Your task to perform on an android device: toggle priority inbox in the gmail app Image 0: 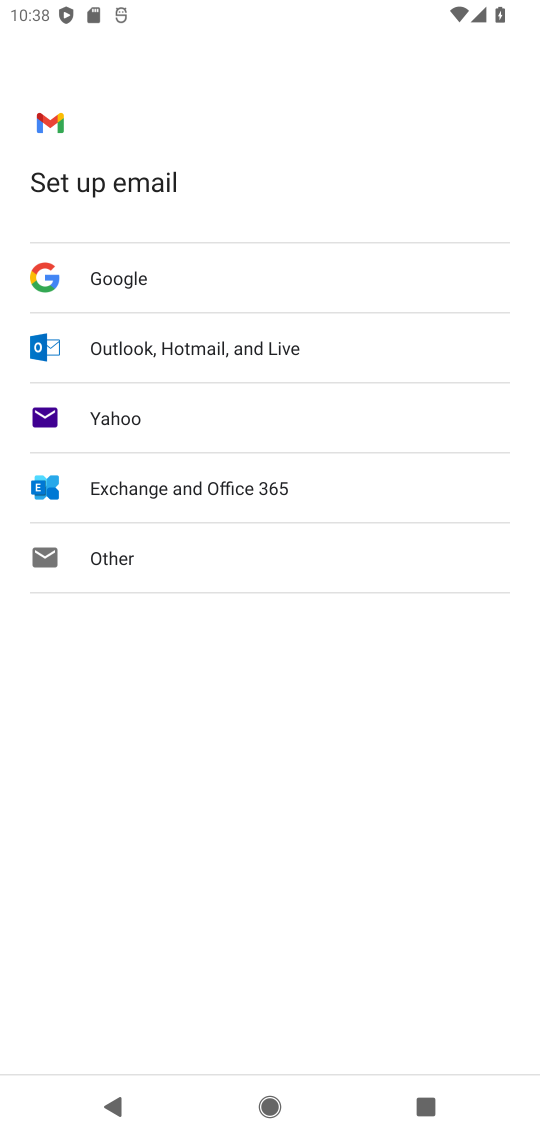
Step 0: press home button
Your task to perform on an android device: toggle priority inbox in the gmail app Image 1: 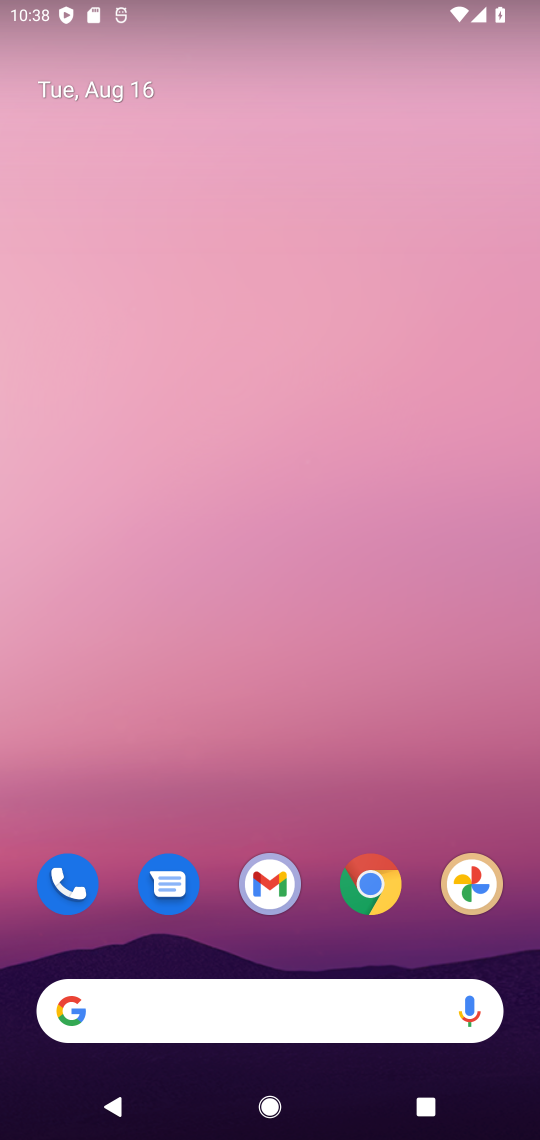
Step 1: click (246, 895)
Your task to perform on an android device: toggle priority inbox in the gmail app Image 2: 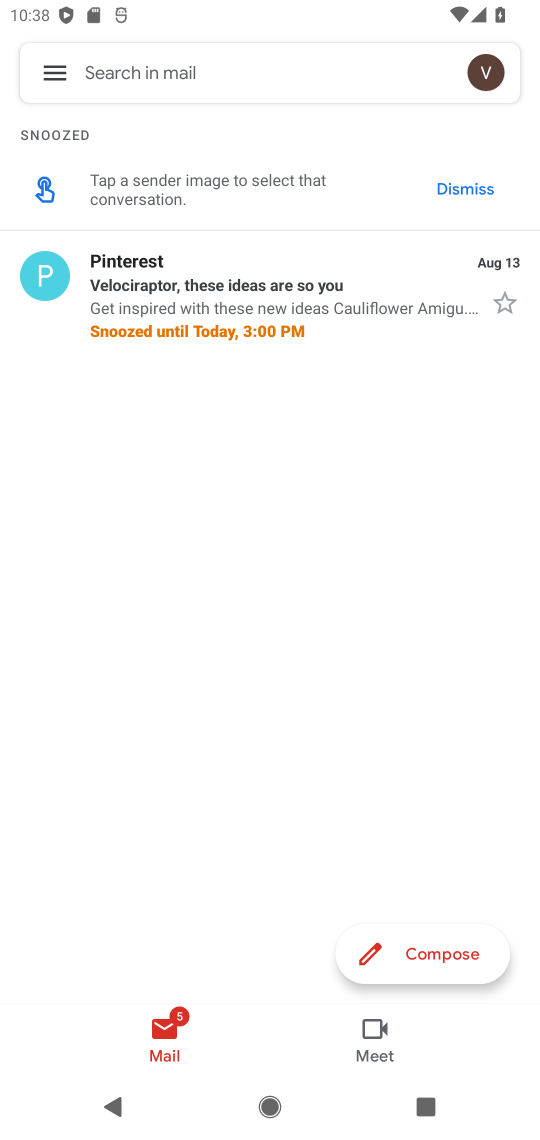
Step 2: click (54, 77)
Your task to perform on an android device: toggle priority inbox in the gmail app Image 3: 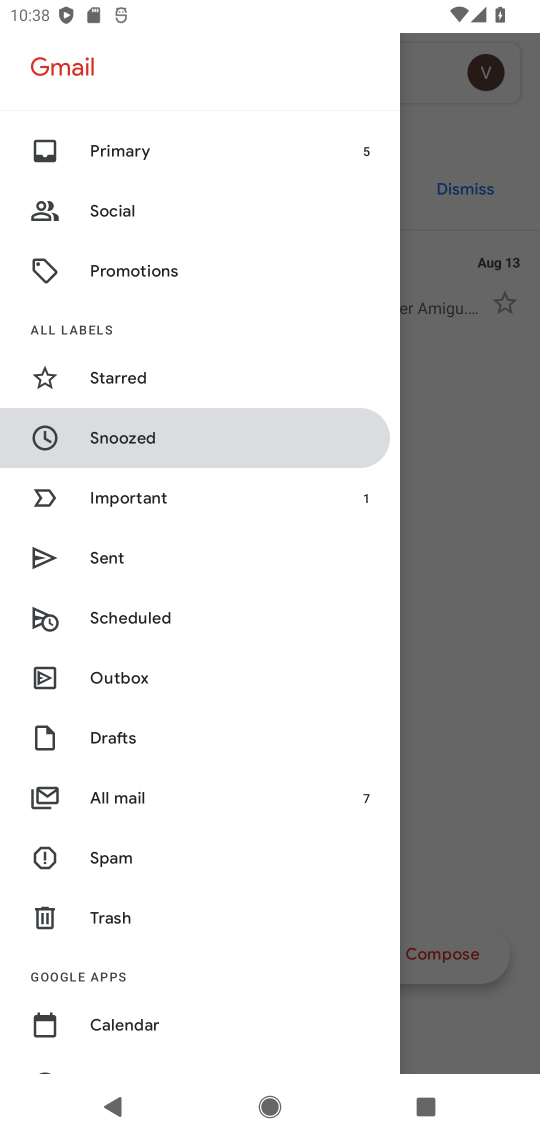
Step 3: drag from (150, 950) to (184, 391)
Your task to perform on an android device: toggle priority inbox in the gmail app Image 4: 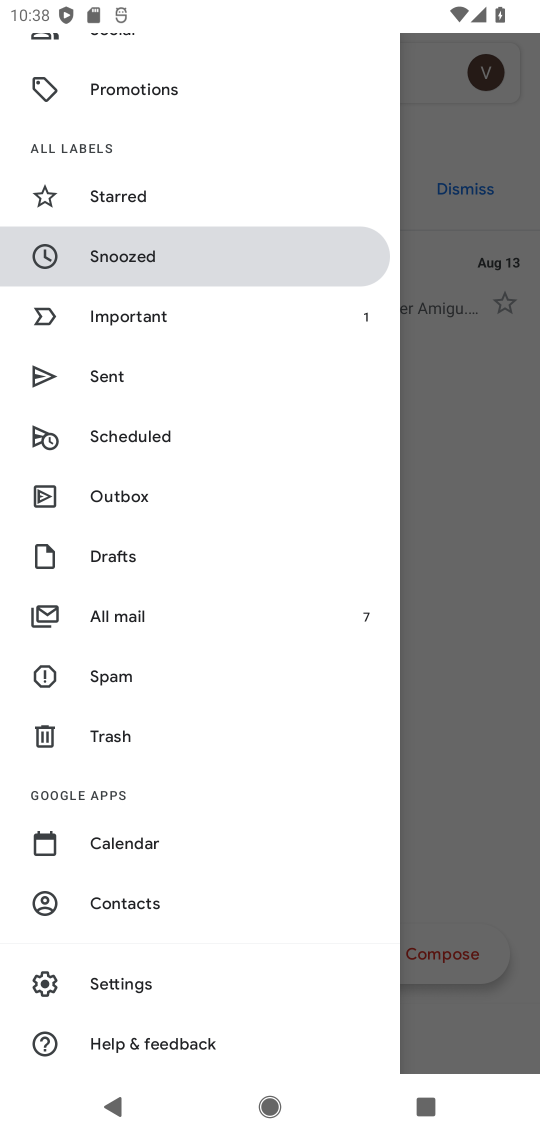
Step 4: click (141, 979)
Your task to perform on an android device: toggle priority inbox in the gmail app Image 5: 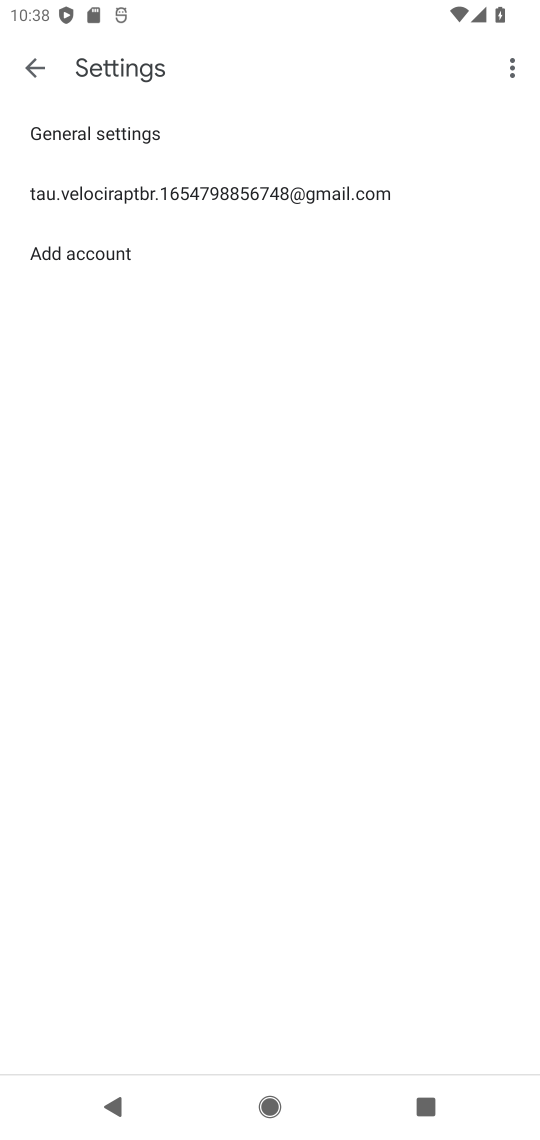
Step 5: click (116, 192)
Your task to perform on an android device: toggle priority inbox in the gmail app Image 6: 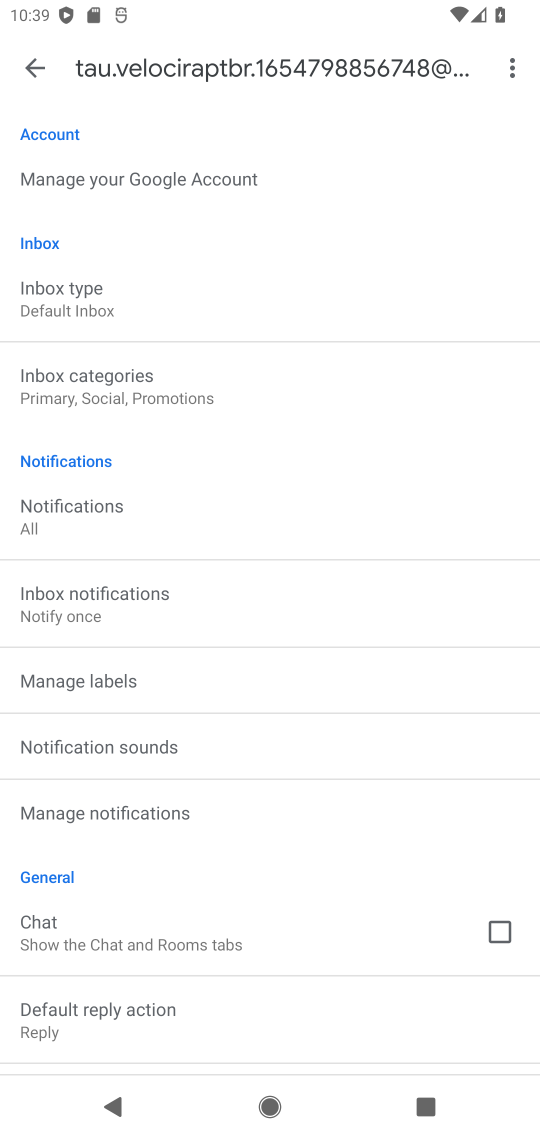
Step 6: click (81, 290)
Your task to perform on an android device: toggle priority inbox in the gmail app Image 7: 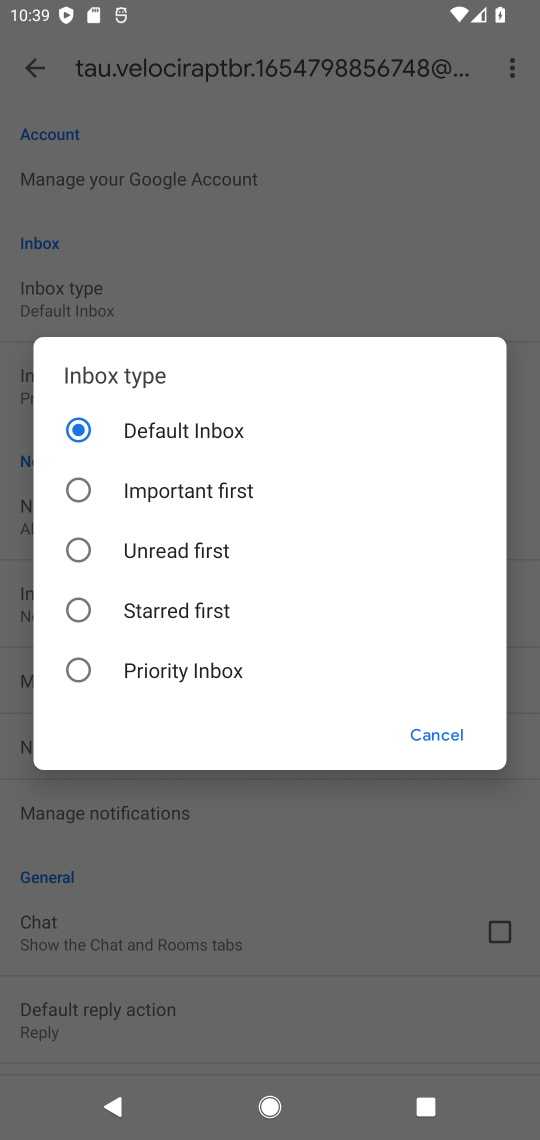
Step 7: click (77, 681)
Your task to perform on an android device: toggle priority inbox in the gmail app Image 8: 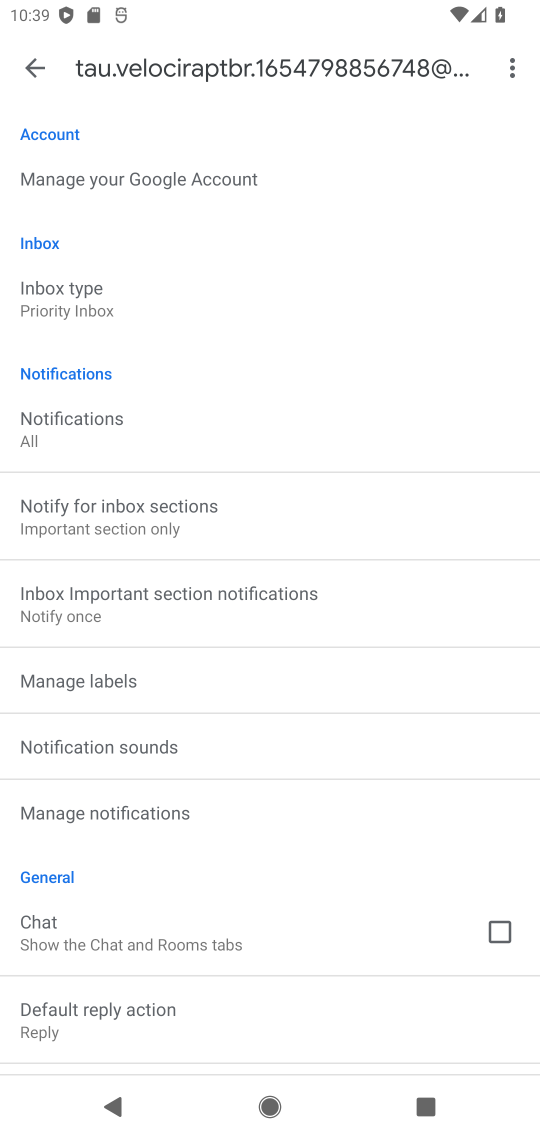
Step 8: task complete